Your task to perform on an android device: turn on priority inbox in the gmail app Image 0: 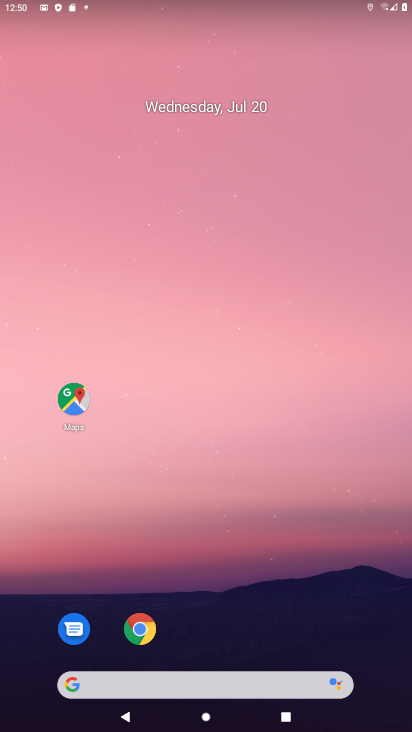
Step 0: drag from (200, 680) to (258, 89)
Your task to perform on an android device: turn on priority inbox in the gmail app Image 1: 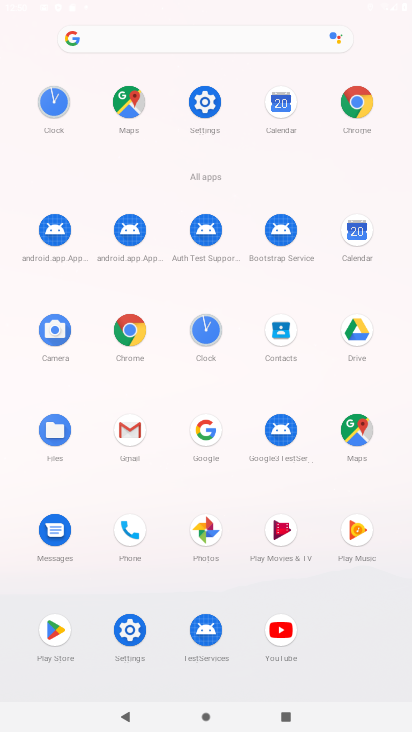
Step 1: click (129, 429)
Your task to perform on an android device: turn on priority inbox in the gmail app Image 2: 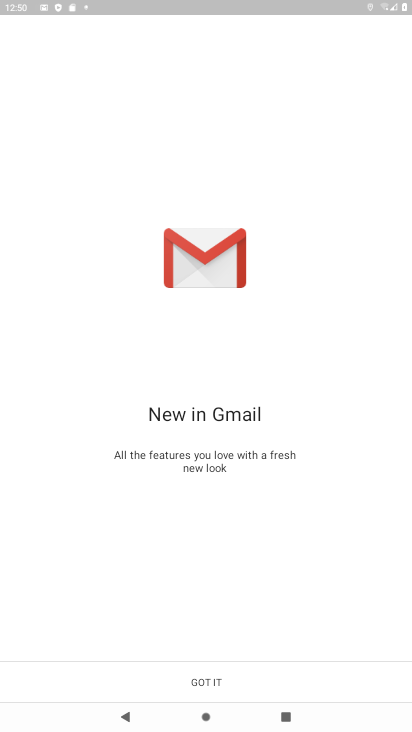
Step 2: click (203, 684)
Your task to perform on an android device: turn on priority inbox in the gmail app Image 3: 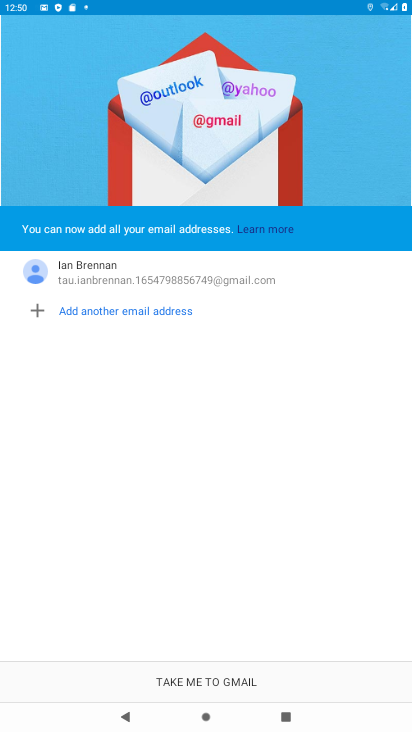
Step 3: click (203, 684)
Your task to perform on an android device: turn on priority inbox in the gmail app Image 4: 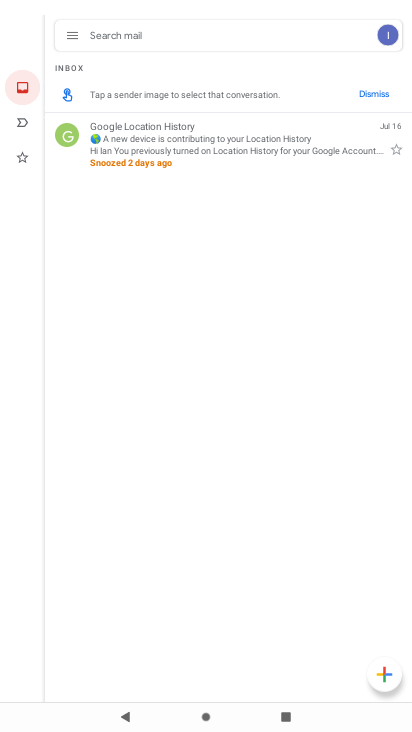
Step 4: click (72, 38)
Your task to perform on an android device: turn on priority inbox in the gmail app Image 5: 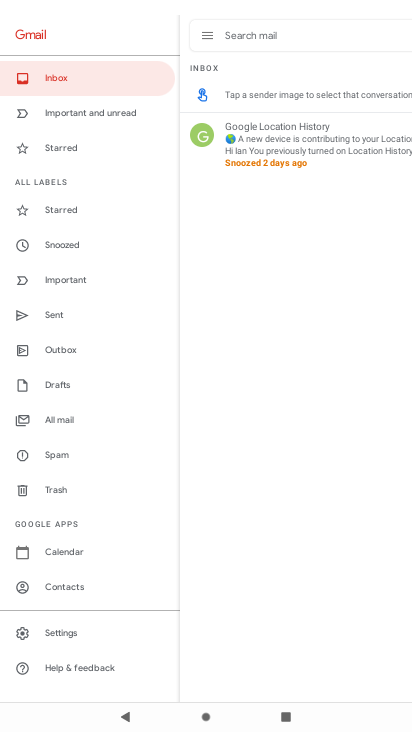
Step 5: click (58, 634)
Your task to perform on an android device: turn on priority inbox in the gmail app Image 6: 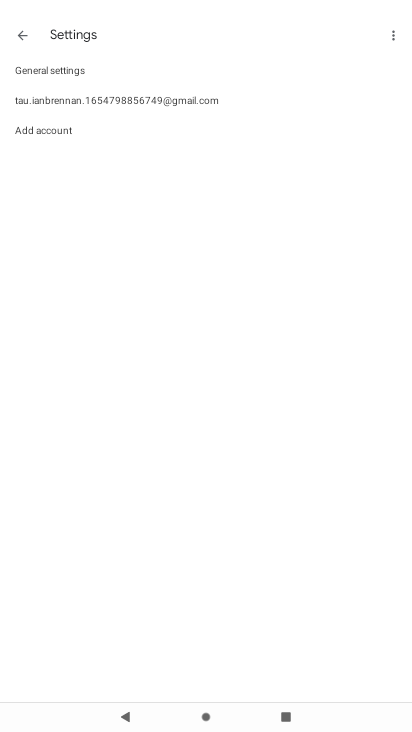
Step 6: click (154, 101)
Your task to perform on an android device: turn on priority inbox in the gmail app Image 7: 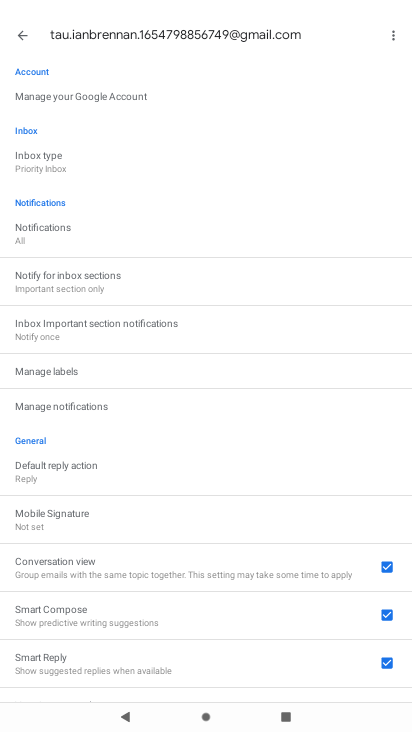
Step 7: task complete